Your task to perform on an android device: Open maps Image 0: 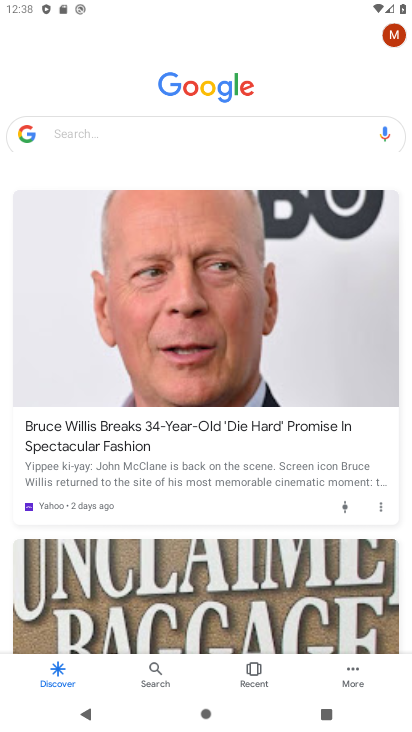
Step 0: drag from (190, 635) to (198, 187)
Your task to perform on an android device: Open maps Image 1: 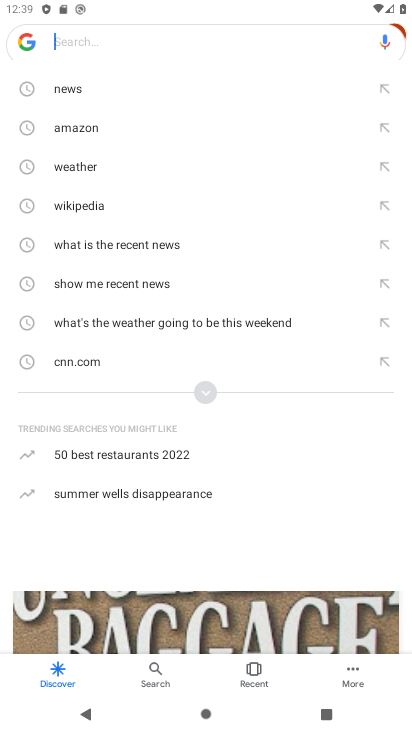
Step 1: press home button
Your task to perform on an android device: Open maps Image 2: 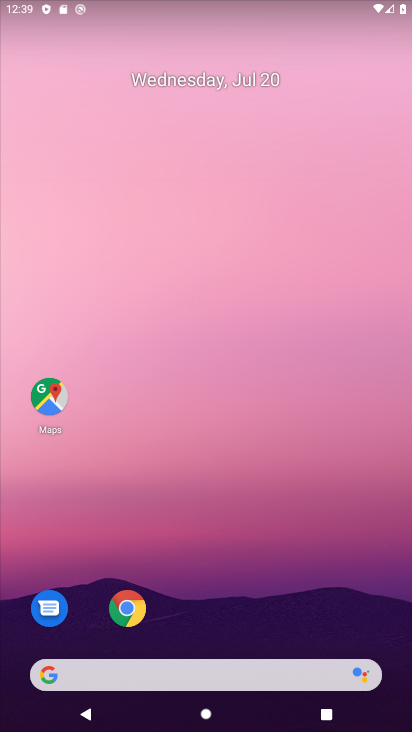
Step 2: click (50, 399)
Your task to perform on an android device: Open maps Image 3: 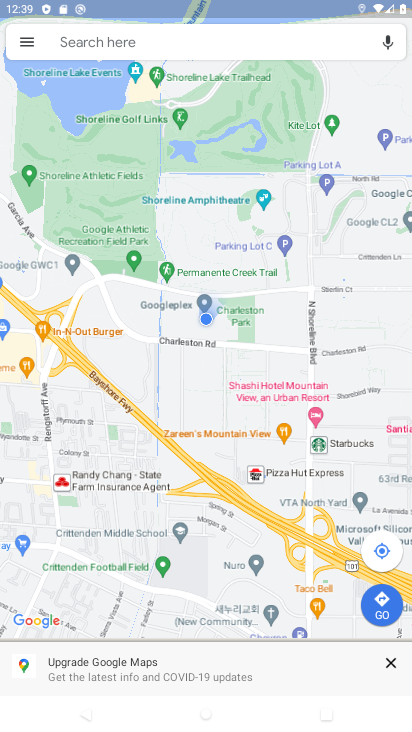
Step 3: task complete